Your task to perform on an android device: move an email to a new category in the gmail app Image 0: 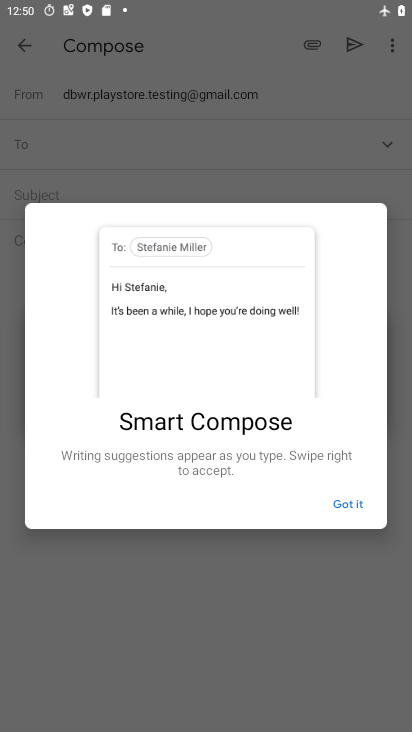
Step 0: press home button
Your task to perform on an android device: move an email to a new category in the gmail app Image 1: 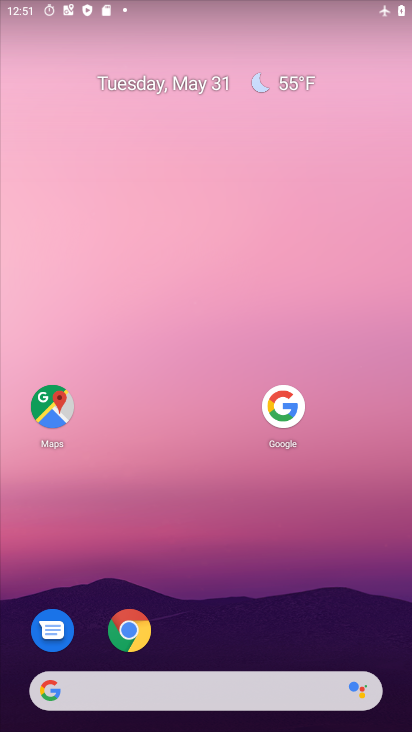
Step 1: drag from (229, 700) to (372, 120)
Your task to perform on an android device: move an email to a new category in the gmail app Image 2: 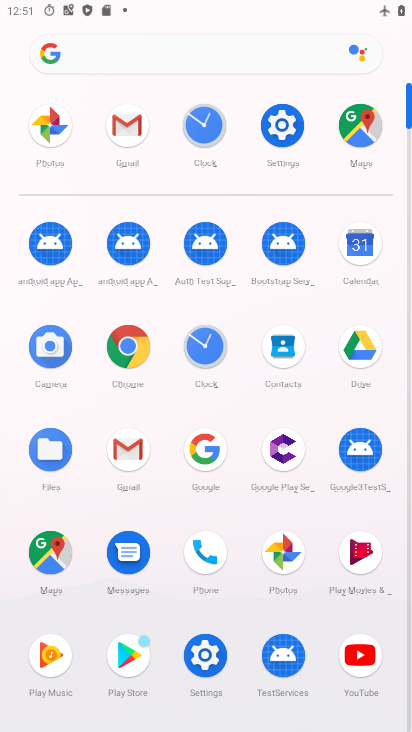
Step 2: click (138, 123)
Your task to perform on an android device: move an email to a new category in the gmail app Image 3: 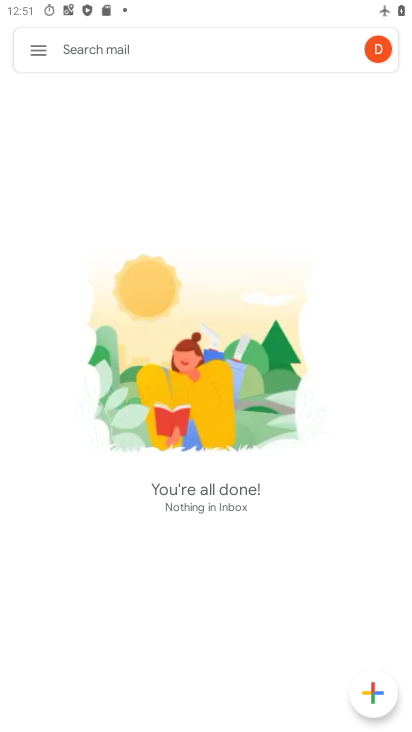
Step 3: task complete